Your task to perform on an android device: turn off location Image 0: 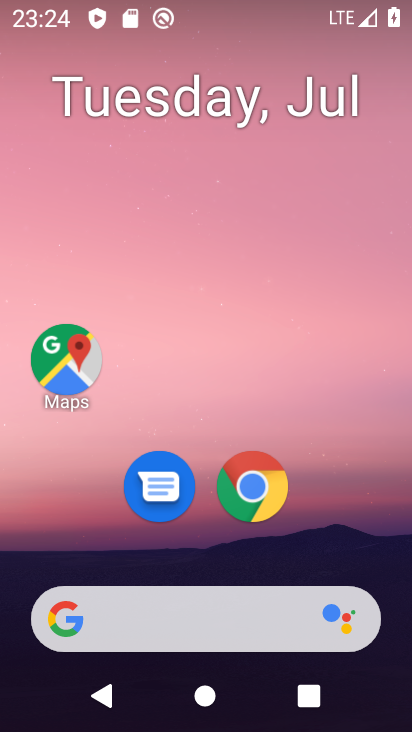
Step 0: press home button
Your task to perform on an android device: turn off location Image 1: 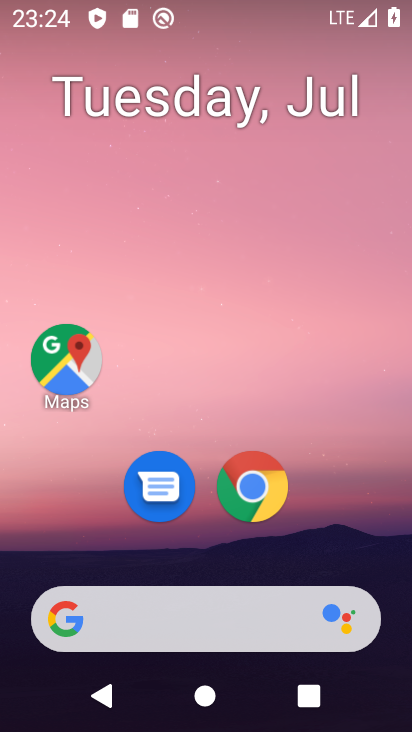
Step 1: drag from (369, 537) to (360, 127)
Your task to perform on an android device: turn off location Image 2: 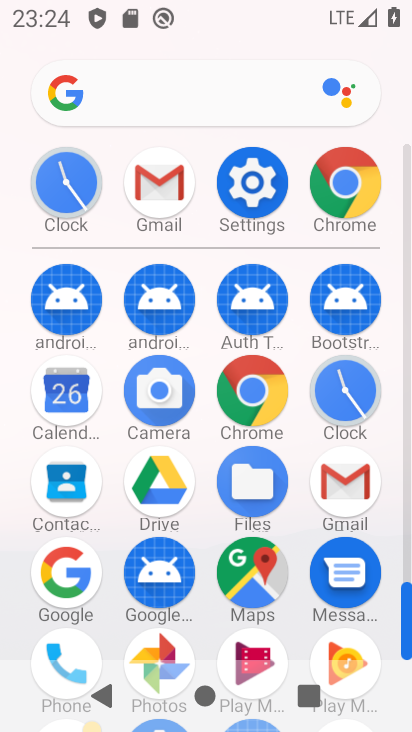
Step 2: click (266, 190)
Your task to perform on an android device: turn off location Image 3: 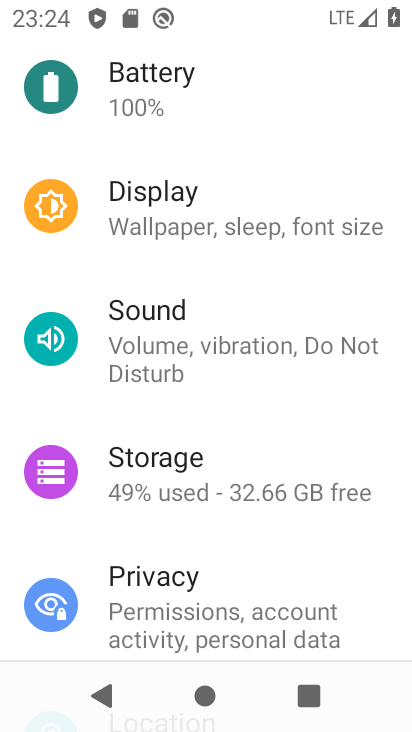
Step 3: drag from (371, 455) to (360, 371)
Your task to perform on an android device: turn off location Image 4: 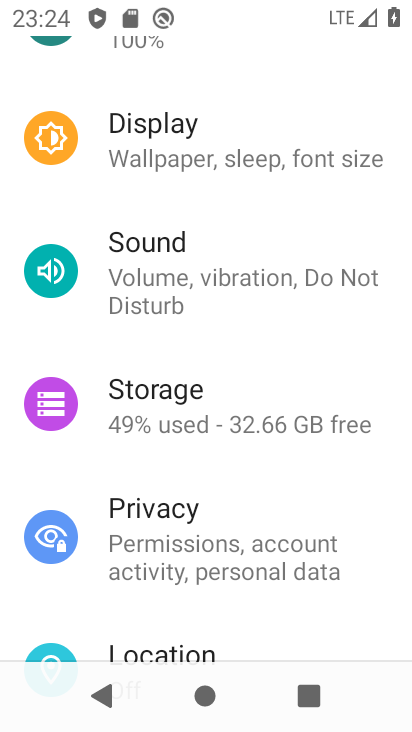
Step 4: drag from (348, 505) to (351, 398)
Your task to perform on an android device: turn off location Image 5: 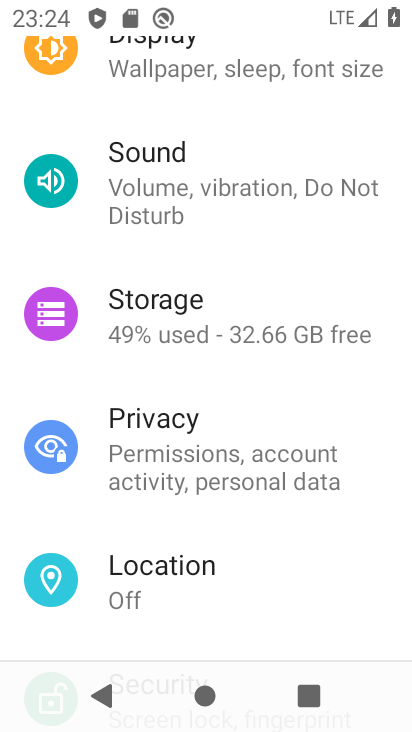
Step 5: drag from (347, 535) to (362, 413)
Your task to perform on an android device: turn off location Image 6: 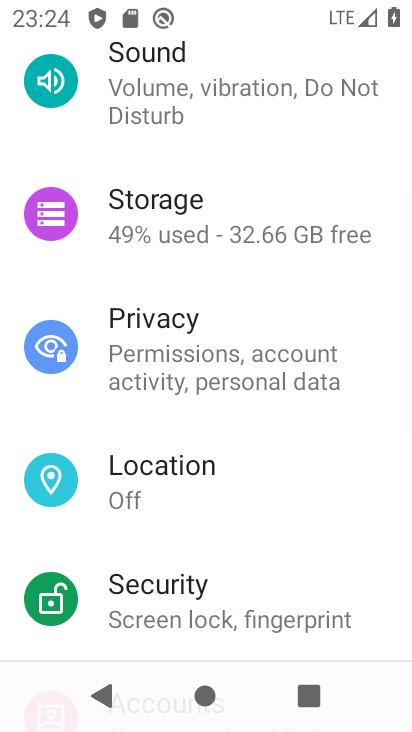
Step 6: drag from (362, 592) to (361, 430)
Your task to perform on an android device: turn off location Image 7: 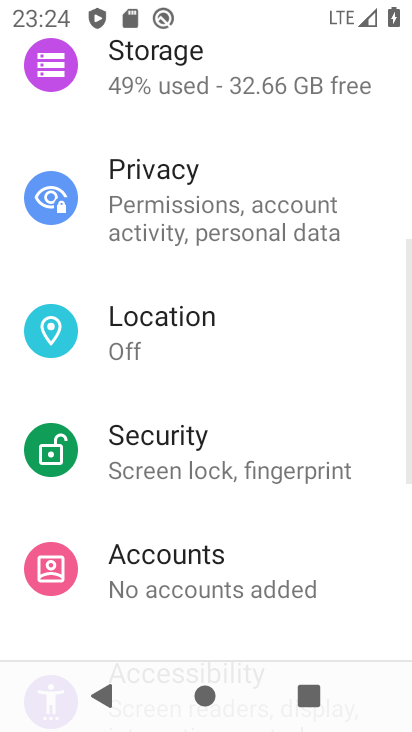
Step 7: drag from (357, 581) to (356, 437)
Your task to perform on an android device: turn off location Image 8: 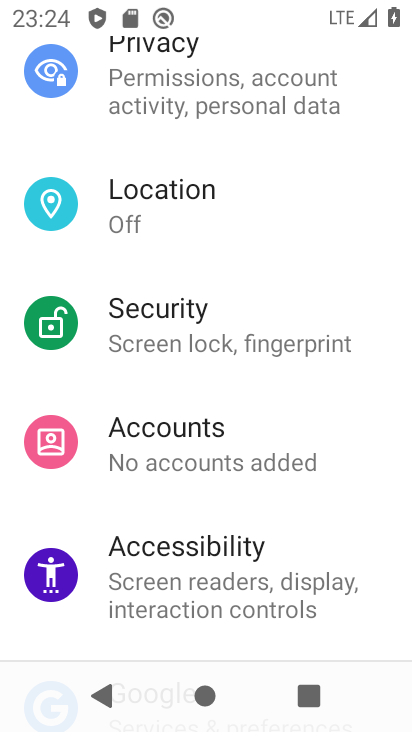
Step 8: drag from (342, 546) to (342, 457)
Your task to perform on an android device: turn off location Image 9: 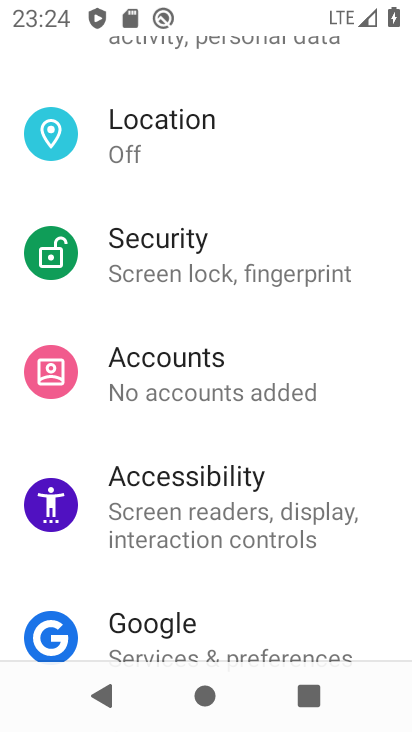
Step 9: click (218, 145)
Your task to perform on an android device: turn off location Image 10: 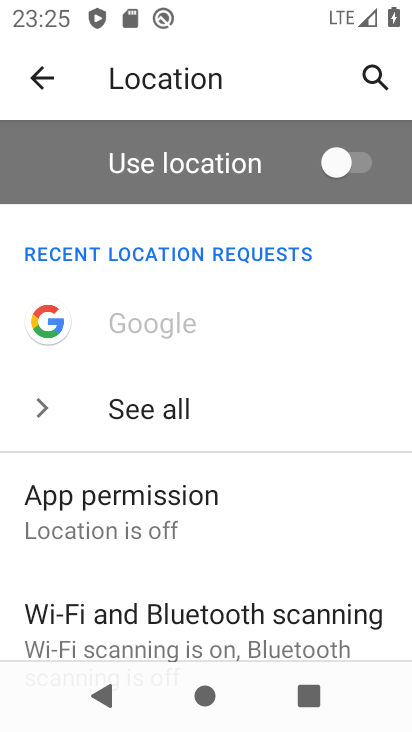
Step 10: task complete